Your task to perform on an android device: Go to internet settings Image 0: 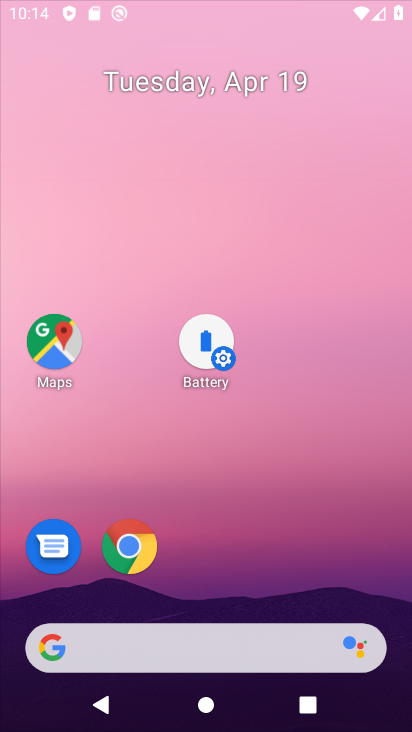
Step 0: click (332, 69)
Your task to perform on an android device: Go to internet settings Image 1: 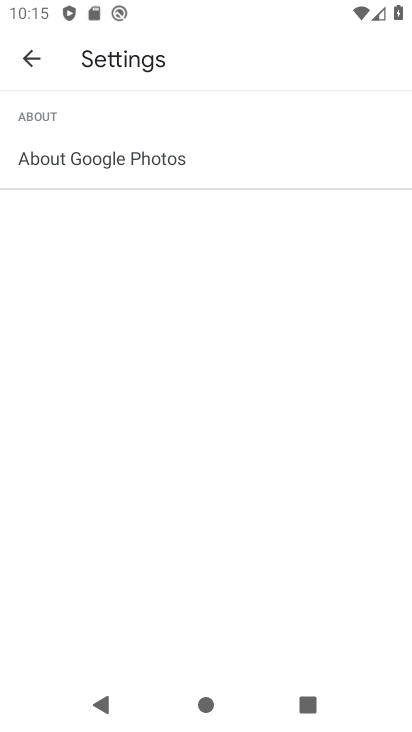
Step 1: press back button
Your task to perform on an android device: Go to internet settings Image 2: 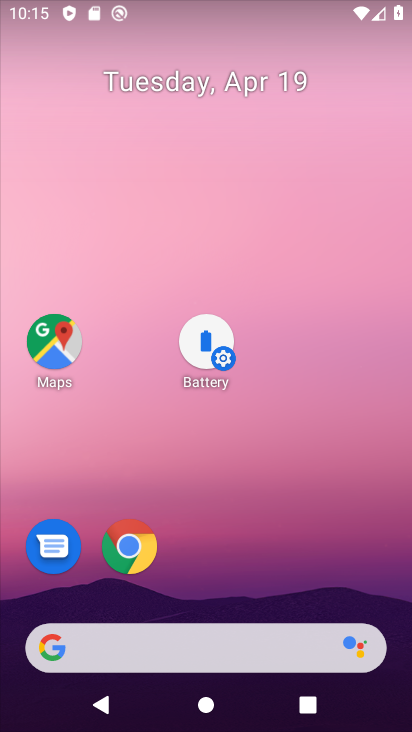
Step 2: drag from (328, 486) to (334, 57)
Your task to perform on an android device: Go to internet settings Image 3: 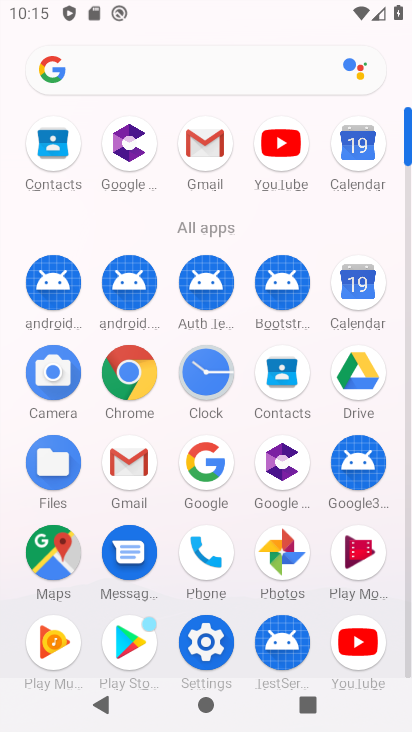
Step 3: click (223, 640)
Your task to perform on an android device: Go to internet settings Image 4: 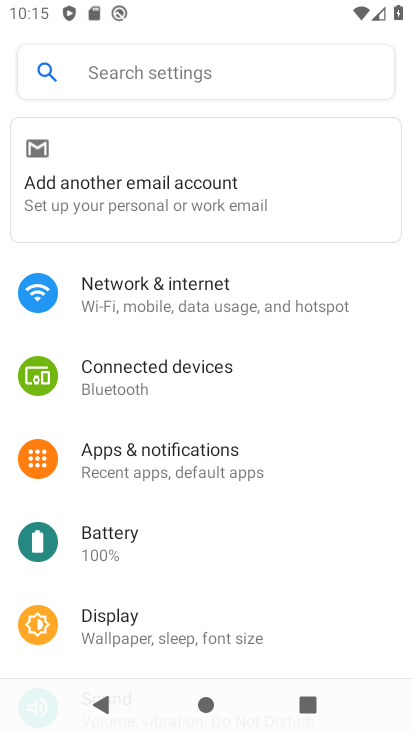
Step 4: click (176, 294)
Your task to perform on an android device: Go to internet settings Image 5: 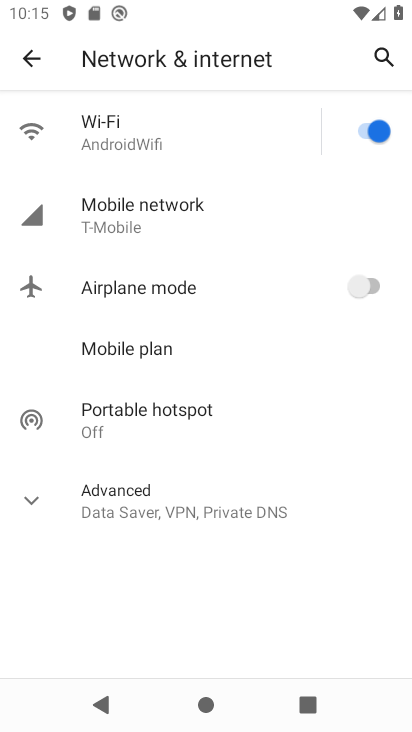
Step 5: click (172, 220)
Your task to perform on an android device: Go to internet settings Image 6: 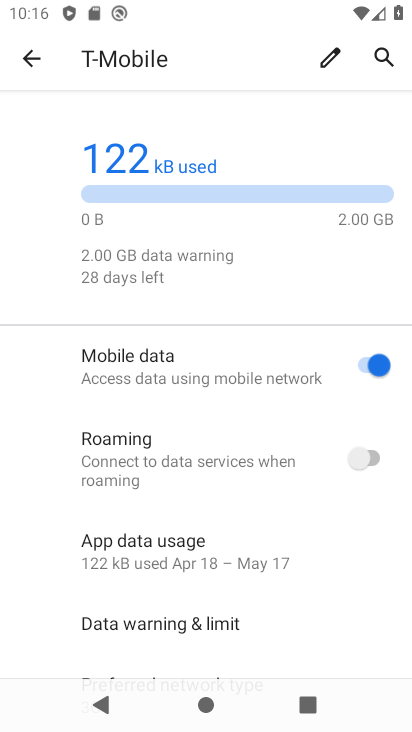
Step 6: task complete